Your task to perform on an android device: change the clock display to digital Image 0: 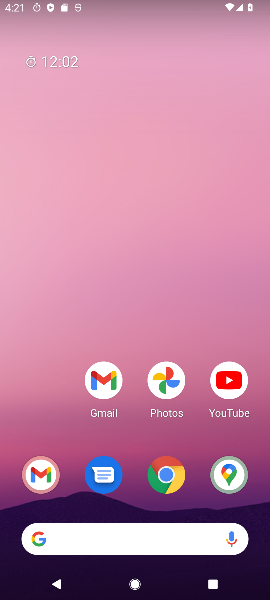
Step 0: drag from (138, 444) to (13, 0)
Your task to perform on an android device: change the clock display to digital Image 1: 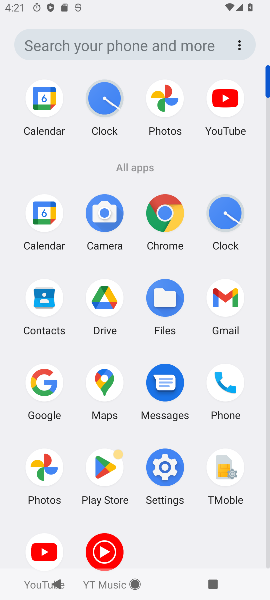
Step 1: click (224, 210)
Your task to perform on an android device: change the clock display to digital Image 2: 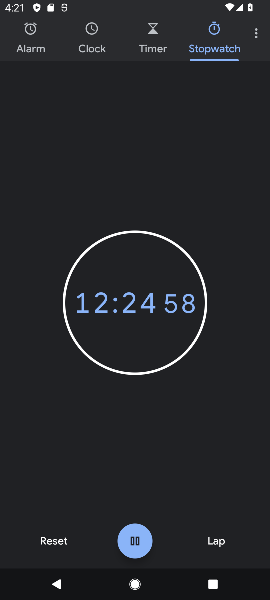
Step 2: click (257, 41)
Your task to perform on an android device: change the clock display to digital Image 3: 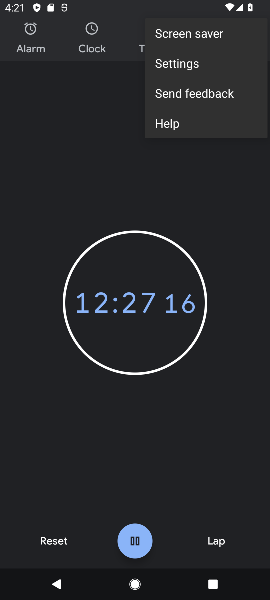
Step 3: click (177, 72)
Your task to perform on an android device: change the clock display to digital Image 4: 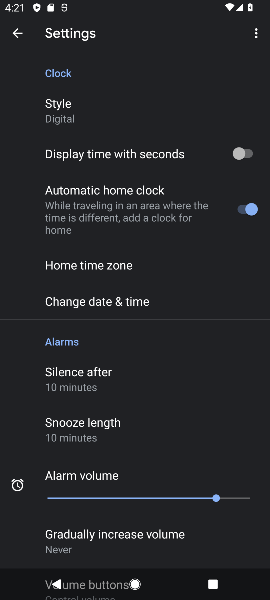
Step 4: task complete